Your task to perform on an android device: turn on showing notifications on the lock screen Image 0: 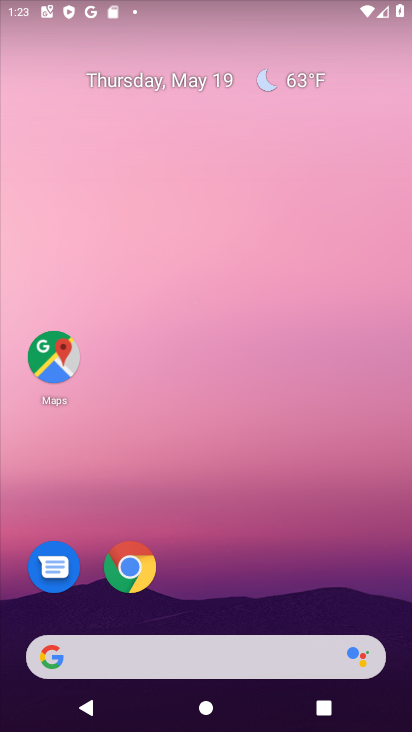
Step 0: drag from (322, 472) to (285, 53)
Your task to perform on an android device: turn on showing notifications on the lock screen Image 1: 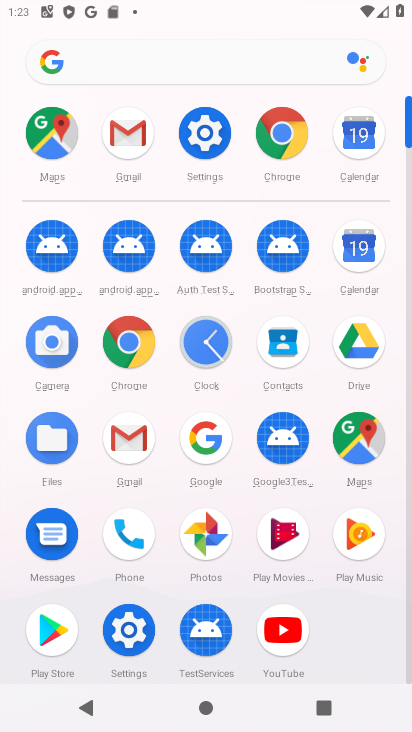
Step 1: click (213, 130)
Your task to perform on an android device: turn on showing notifications on the lock screen Image 2: 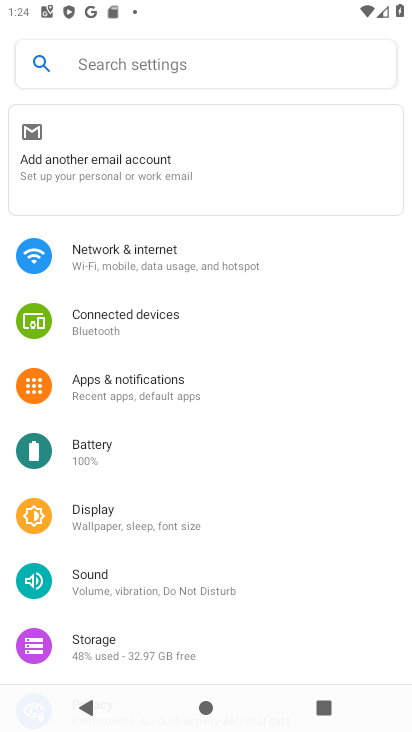
Step 2: click (168, 403)
Your task to perform on an android device: turn on showing notifications on the lock screen Image 3: 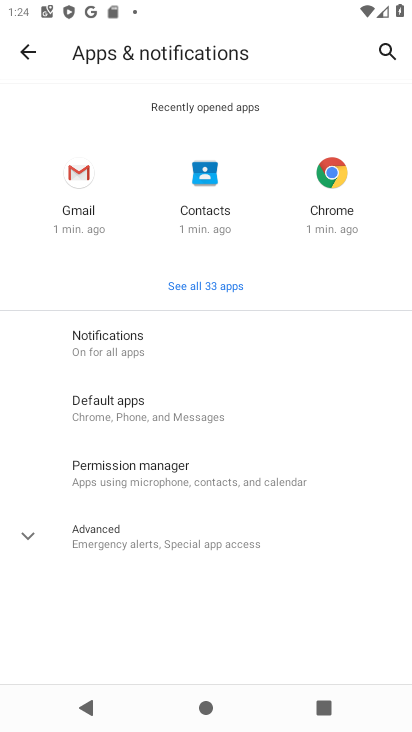
Step 3: click (77, 335)
Your task to perform on an android device: turn on showing notifications on the lock screen Image 4: 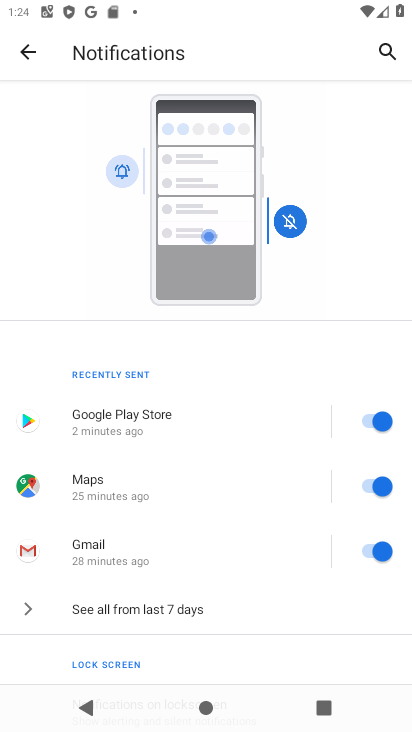
Step 4: drag from (210, 593) to (266, 211)
Your task to perform on an android device: turn on showing notifications on the lock screen Image 5: 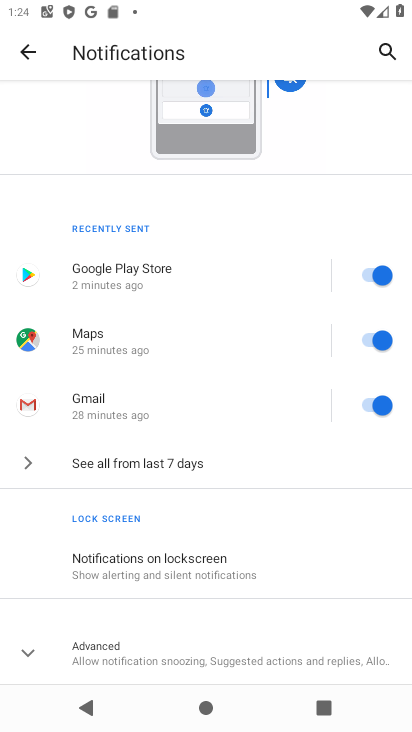
Step 5: click (182, 558)
Your task to perform on an android device: turn on showing notifications on the lock screen Image 6: 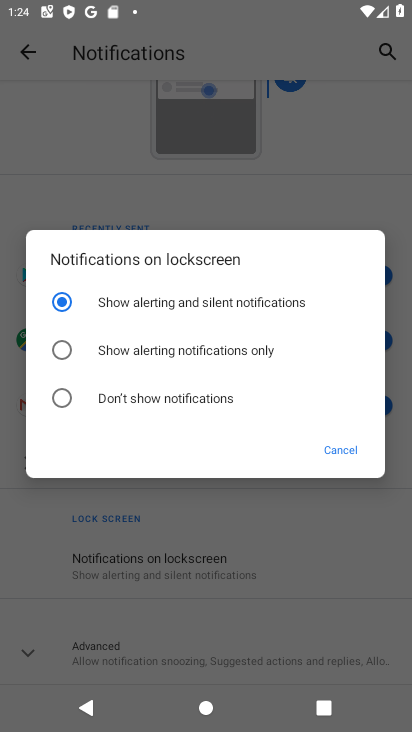
Step 6: click (51, 346)
Your task to perform on an android device: turn on showing notifications on the lock screen Image 7: 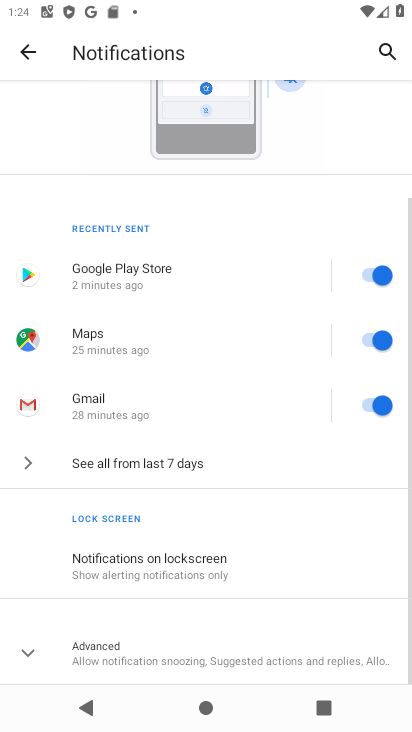
Step 7: task complete